Your task to perform on an android device: Open the Play Movies app and select the watchlist tab. Image 0: 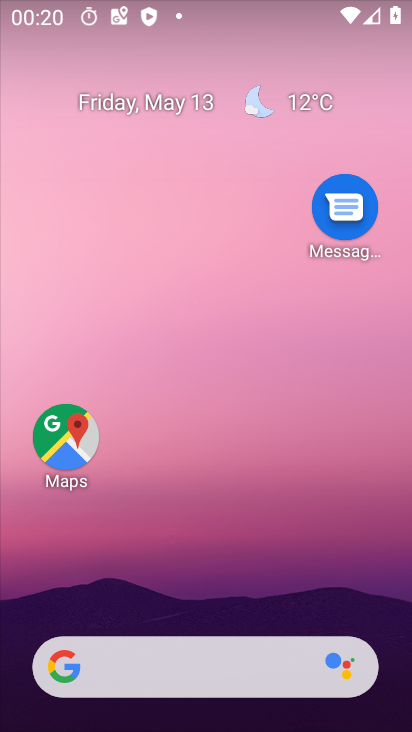
Step 0: press home button
Your task to perform on an android device: Open the Play Movies app and select the watchlist tab. Image 1: 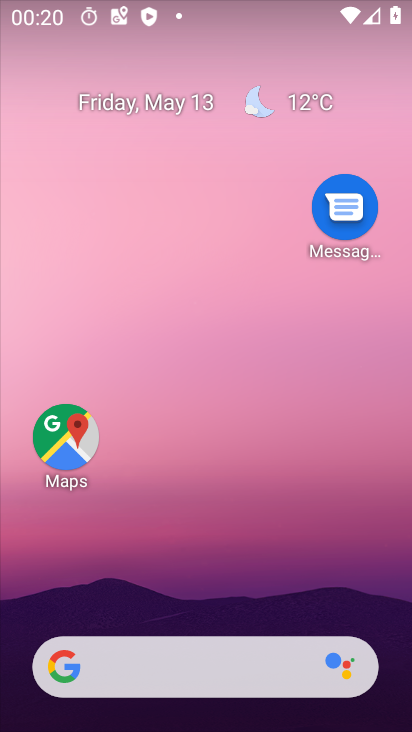
Step 1: drag from (277, 541) to (280, 15)
Your task to perform on an android device: Open the Play Movies app and select the watchlist tab. Image 2: 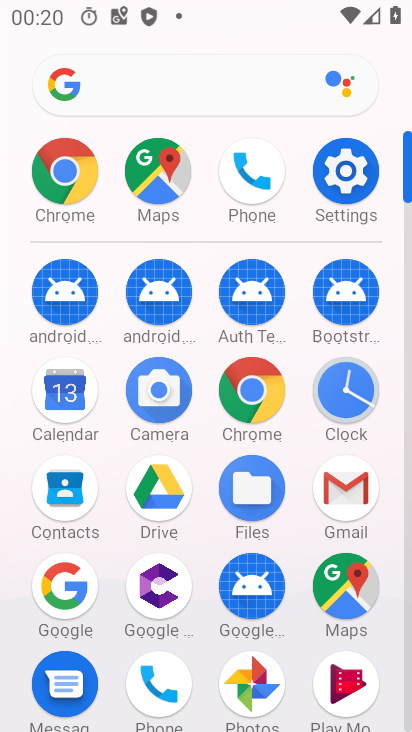
Step 2: drag from (342, 592) to (336, 46)
Your task to perform on an android device: Open the Play Movies app and select the watchlist tab. Image 3: 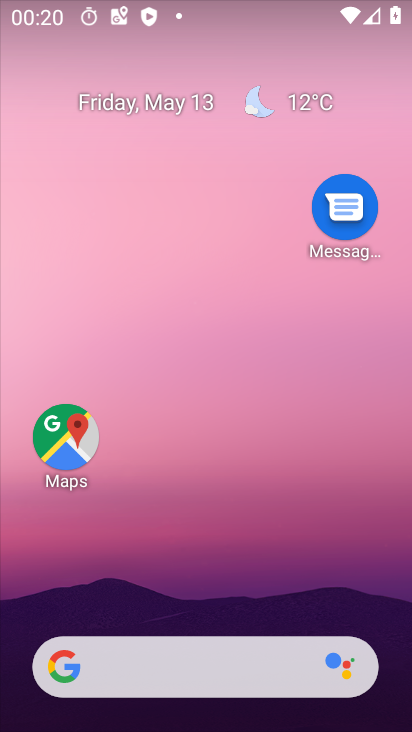
Step 3: drag from (288, 571) to (262, 40)
Your task to perform on an android device: Open the Play Movies app and select the watchlist tab. Image 4: 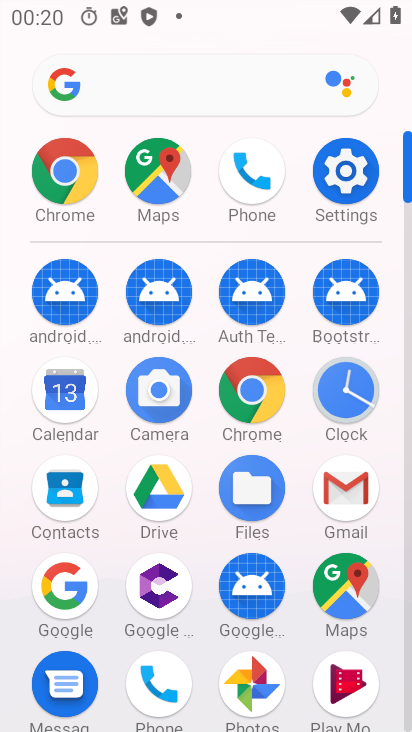
Step 4: click (363, 658)
Your task to perform on an android device: Open the Play Movies app and select the watchlist tab. Image 5: 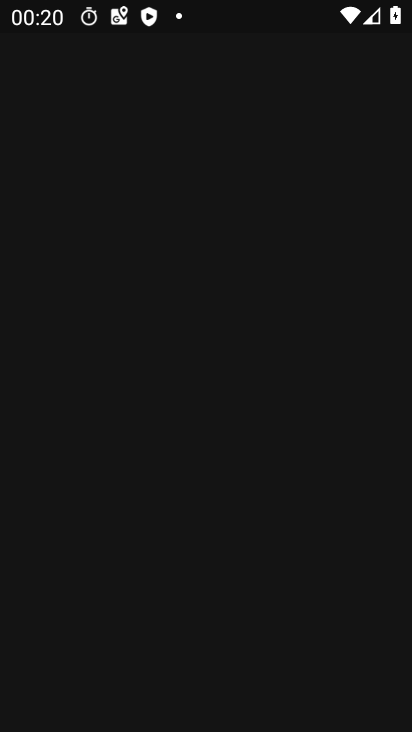
Step 5: click (356, 687)
Your task to perform on an android device: Open the Play Movies app and select the watchlist tab. Image 6: 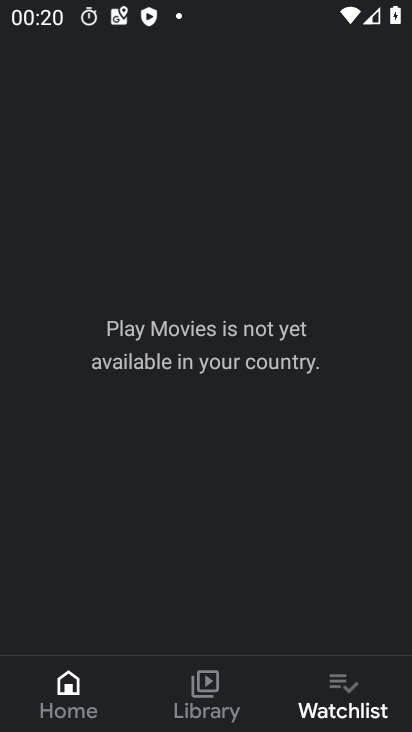
Step 6: click (356, 687)
Your task to perform on an android device: Open the Play Movies app and select the watchlist tab. Image 7: 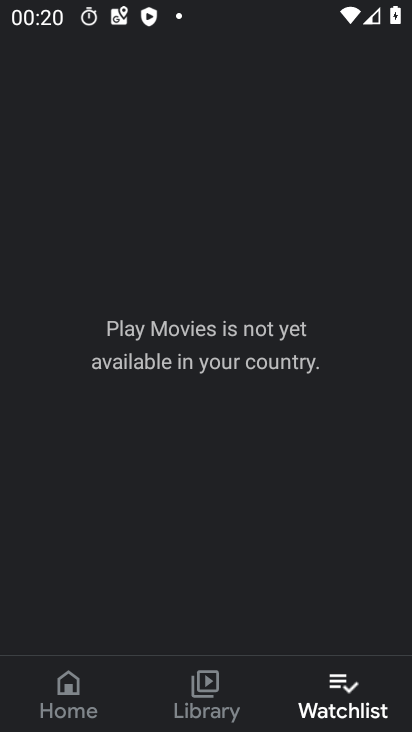
Step 7: task complete